Your task to perform on an android device: open device folders in google photos Image 0: 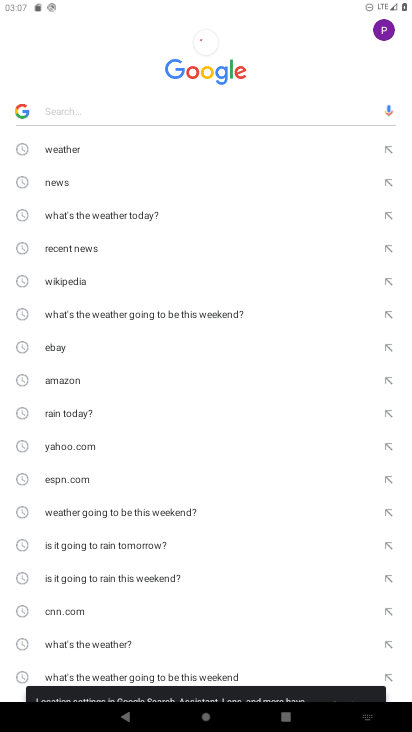
Step 0: press home button
Your task to perform on an android device: open device folders in google photos Image 1: 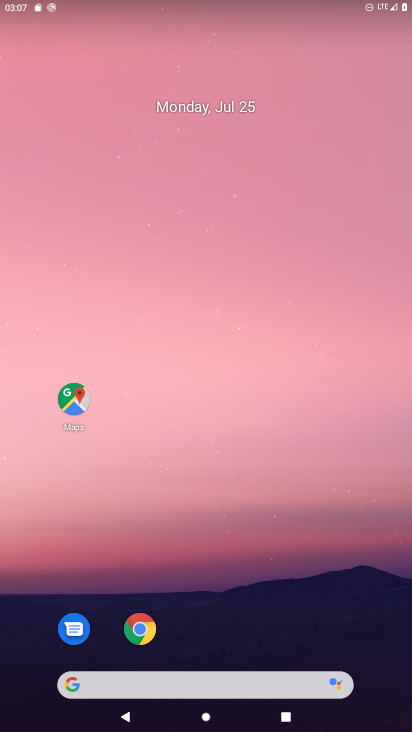
Step 1: drag from (283, 553) to (332, 93)
Your task to perform on an android device: open device folders in google photos Image 2: 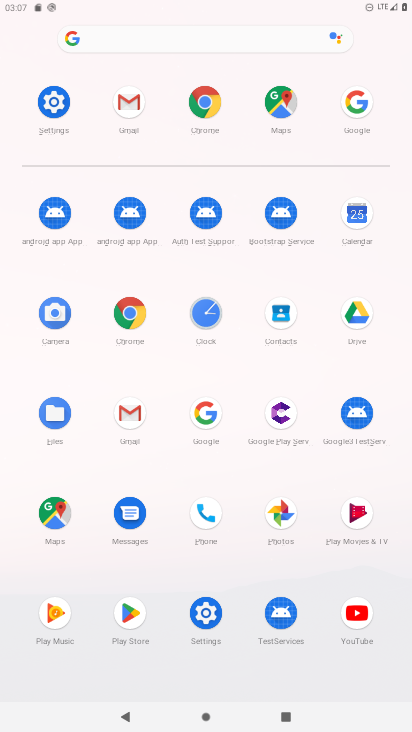
Step 2: click (125, 314)
Your task to perform on an android device: open device folders in google photos Image 3: 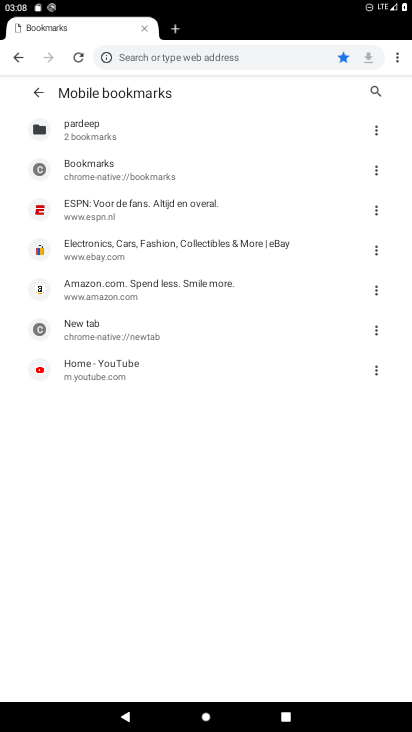
Step 3: click (396, 51)
Your task to perform on an android device: open device folders in google photos Image 4: 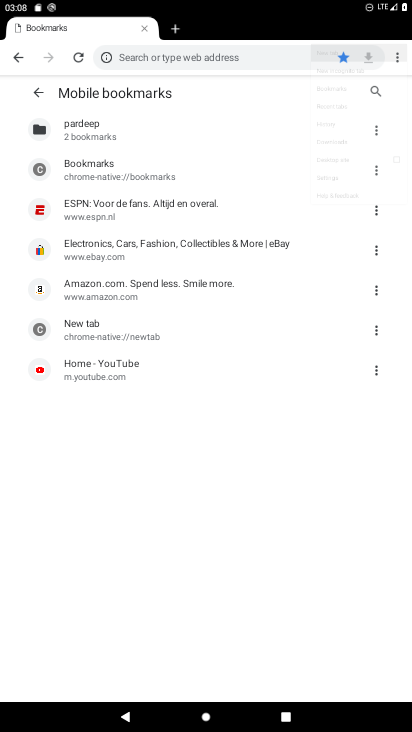
Step 4: click (396, 51)
Your task to perform on an android device: open device folders in google photos Image 5: 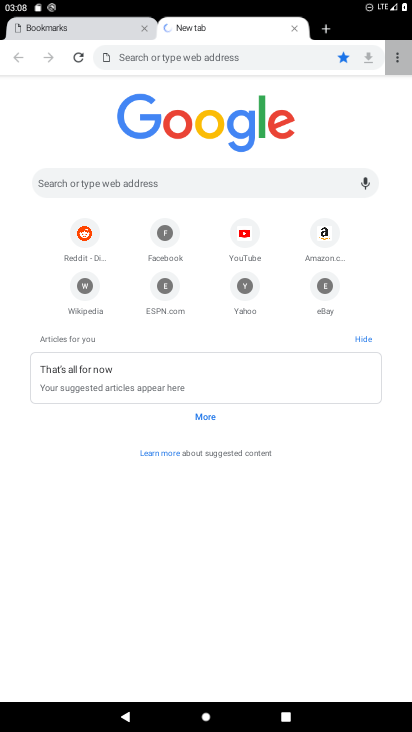
Step 5: drag from (396, 51) to (399, 239)
Your task to perform on an android device: open device folders in google photos Image 6: 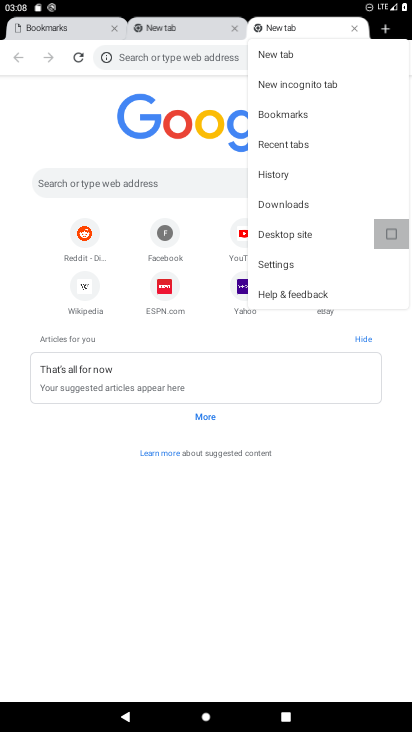
Step 6: press home button
Your task to perform on an android device: open device folders in google photos Image 7: 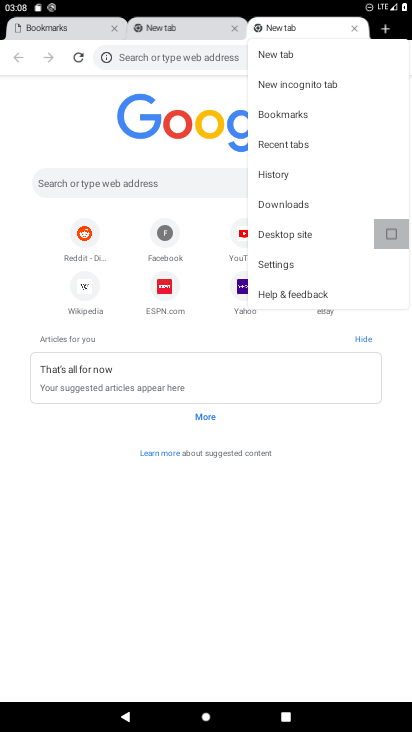
Step 7: drag from (399, 239) to (408, 515)
Your task to perform on an android device: open device folders in google photos Image 8: 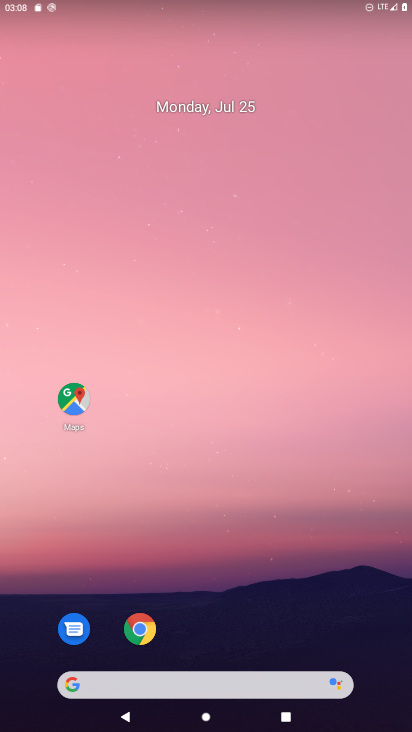
Step 8: drag from (291, 582) to (261, 38)
Your task to perform on an android device: open device folders in google photos Image 9: 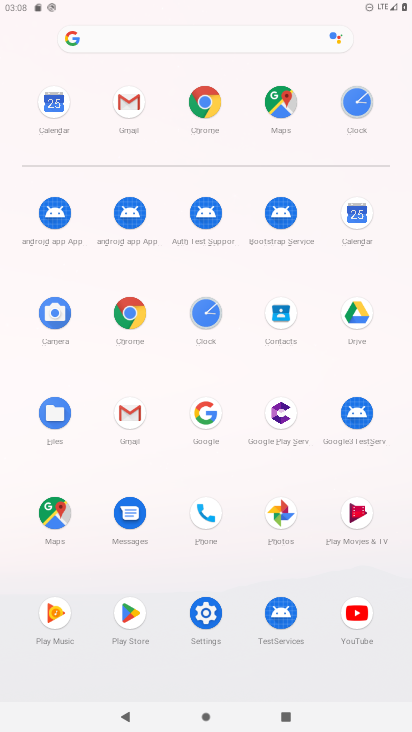
Step 9: click (274, 511)
Your task to perform on an android device: open device folders in google photos Image 10: 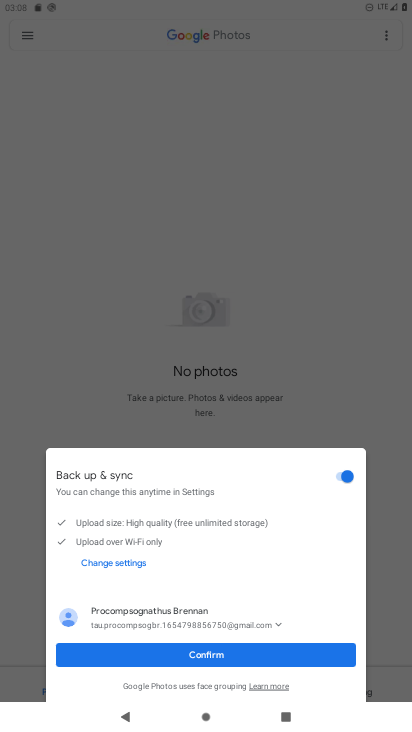
Step 10: click (246, 654)
Your task to perform on an android device: open device folders in google photos Image 11: 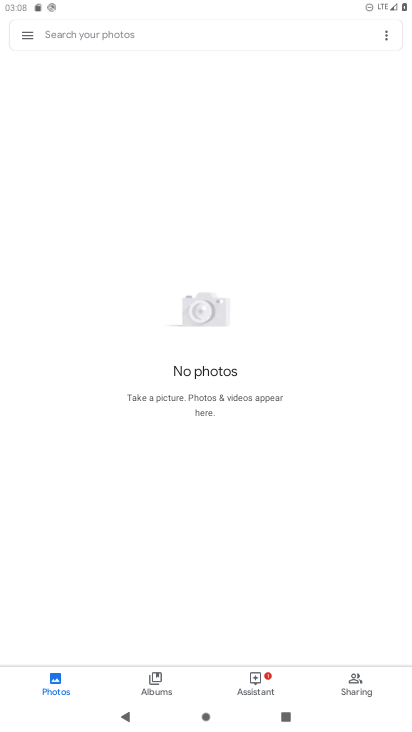
Step 11: click (34, 27)
Your task to perform on an android device: open device folders in google photos Image 12: 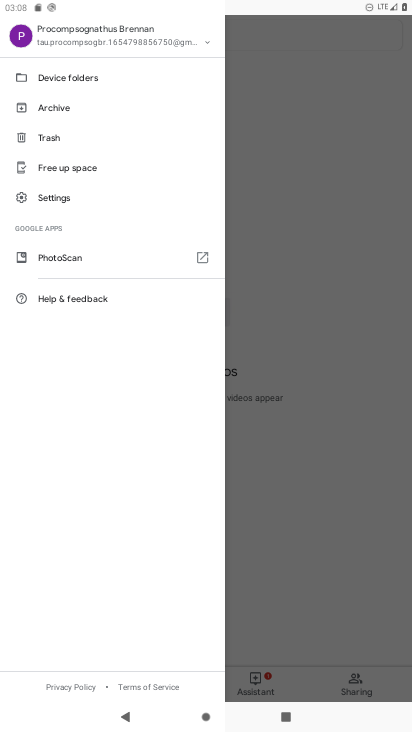
Step 12: click (69, 80)
Your task to perform on an android device: open device folders in google photos Image 13: 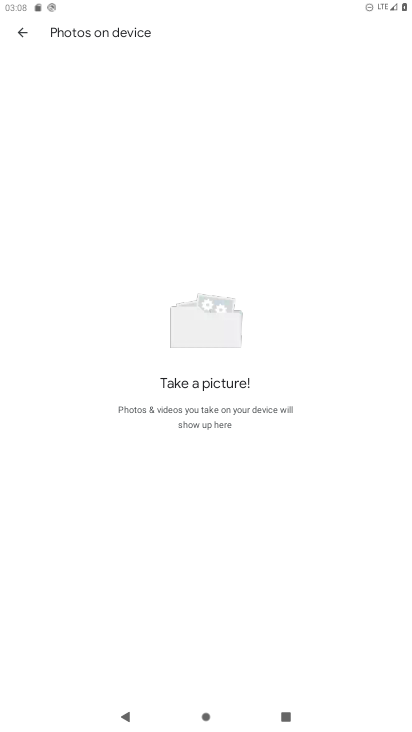
Step 13: task complete